Your task to perform on an android device: change alarm snooze length Image 0: 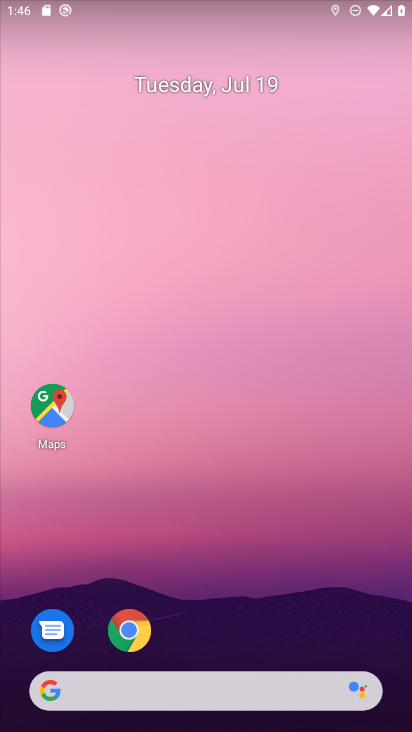
Step 0: press home button
Your task to perform on an android device: change alarm snooze length Image 1: 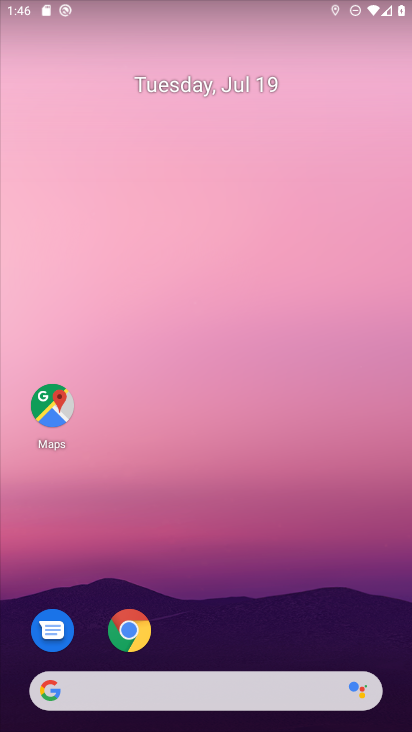
Step 1: drag from (142, 681) to (268, 5)
Your task to perform on an android device: change alarm snooze length Image 2: 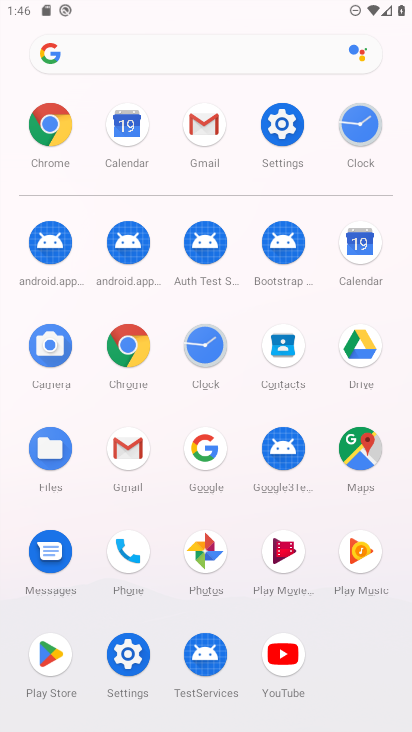
Step 2: click (194, 350)
Your task to perform on an android device: change alarm snooze length Image 3: 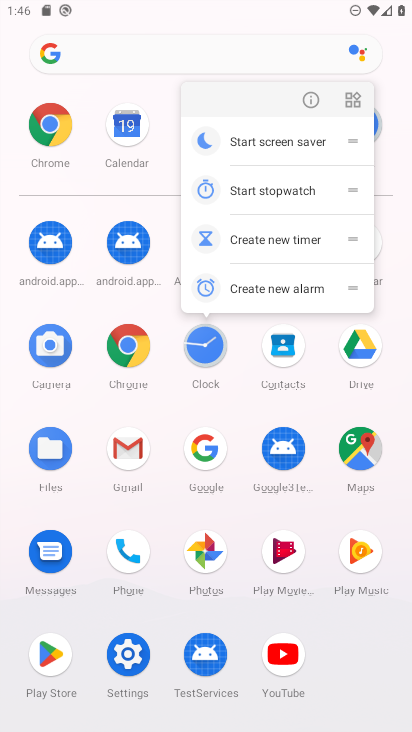
Step 3: click (204, 350)
Your task to perform on an android device: change alarm snooze length Image 4: 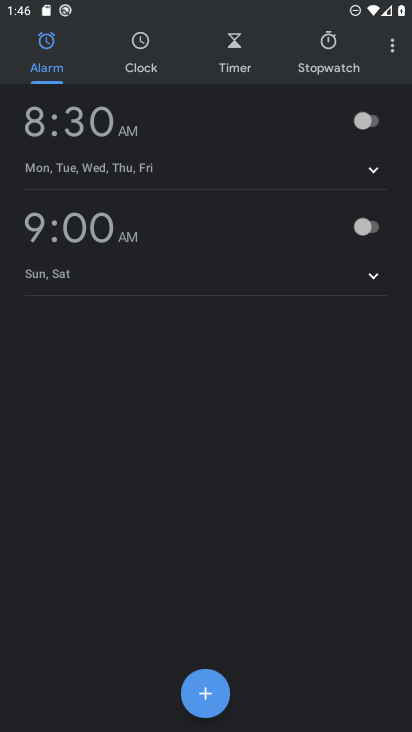
Step 4: click (388, 46)
Your task to perform on an android device: change alarm snooze length Image 5: 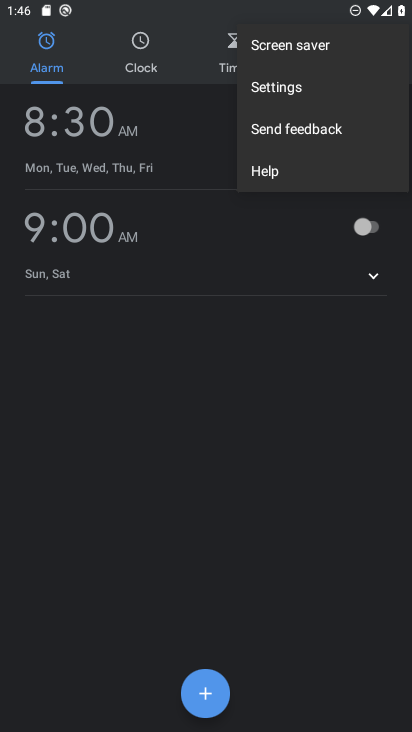
Step 5: click (286, 87)
Your task to perform on an android device: change alarm snooze length Image 6: 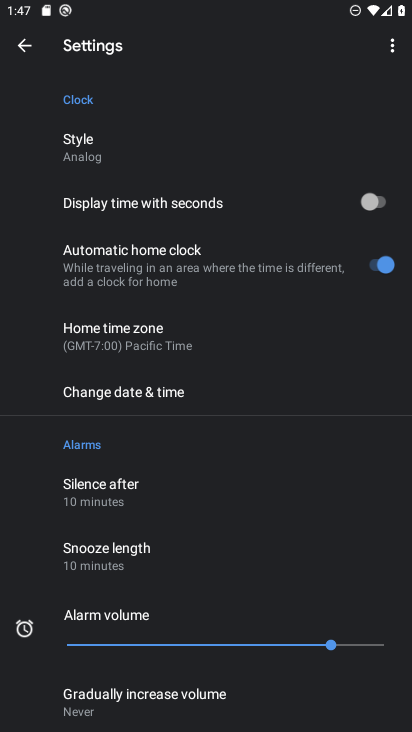
Step 6: drag from (219, 555) to (306, 92)
Your task to perform on an android device: change alarm snooze length Image 7: 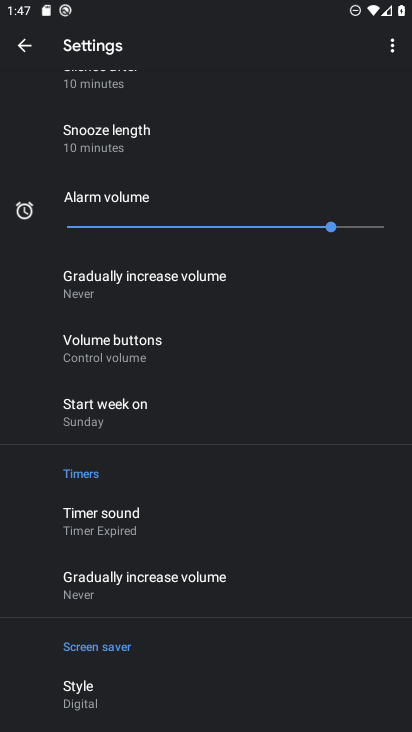
Step 7: click (119, 127)
Your task to perform on an android device: change alarm snooze length Image 8: 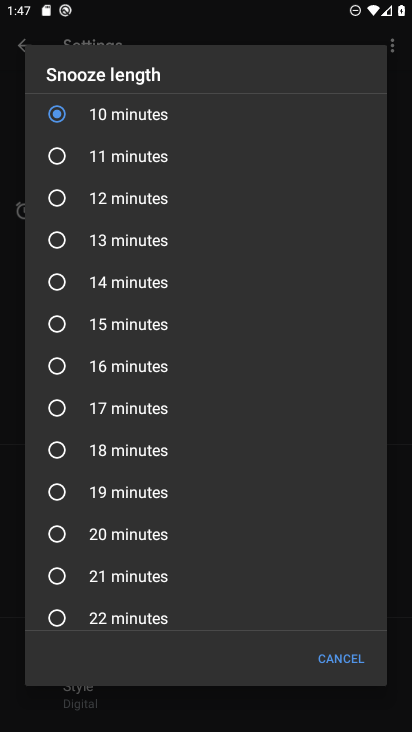
Step 8: click (57, 321)
Your task to perform on an android device: change alarm snooze length Image 9: 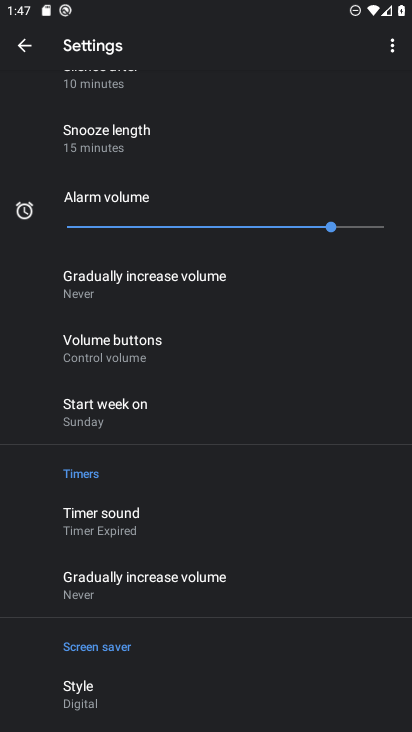
Step 9: task complete